Your task to perform on an android device: Set the phone to "Do not disturb". Image 0: 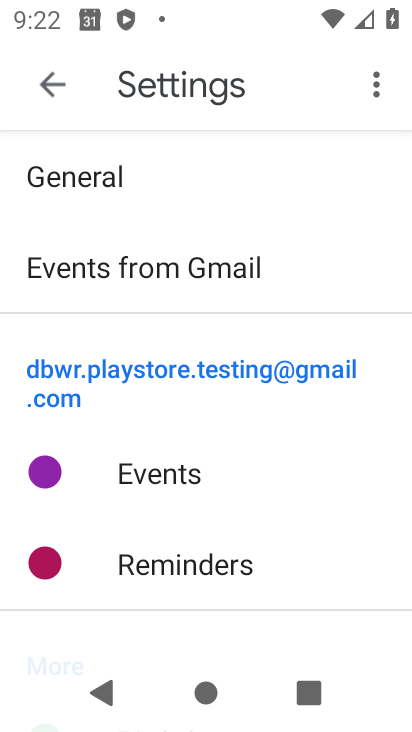
Step 0: drag from (207, 13) to (304, 436)
Your task to perform on an android device: Set the phone to "Do not disturb". Image 1: 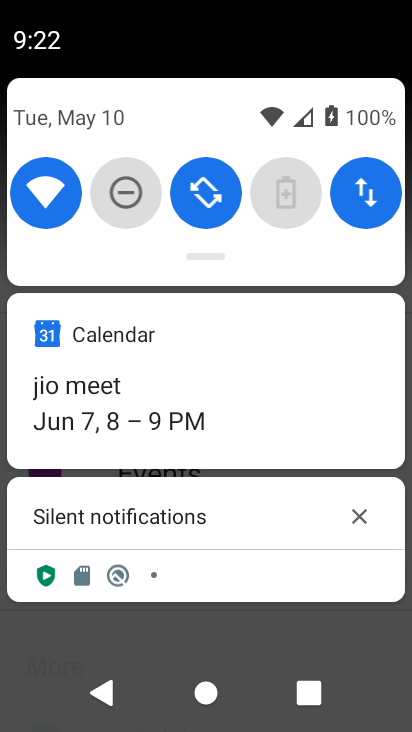
Step 1: click (134, 188)
Your task to perform on an android device: Set the phone to "Do not disturb". Image 2: 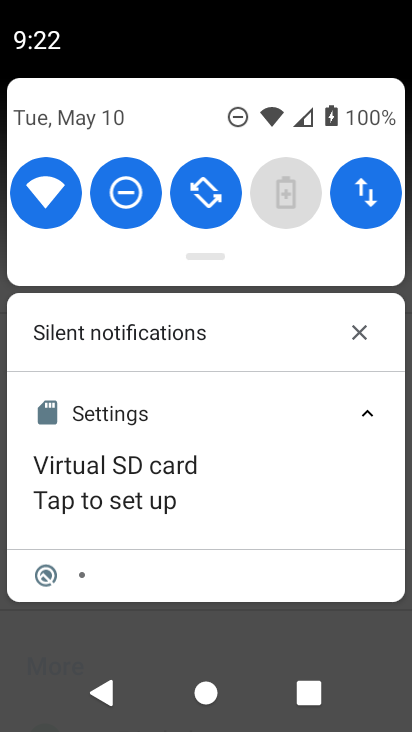
Step 2: task complete